Your task to perform on an android device: Open the Play Movies app and select the watchlist tab. Image 0: 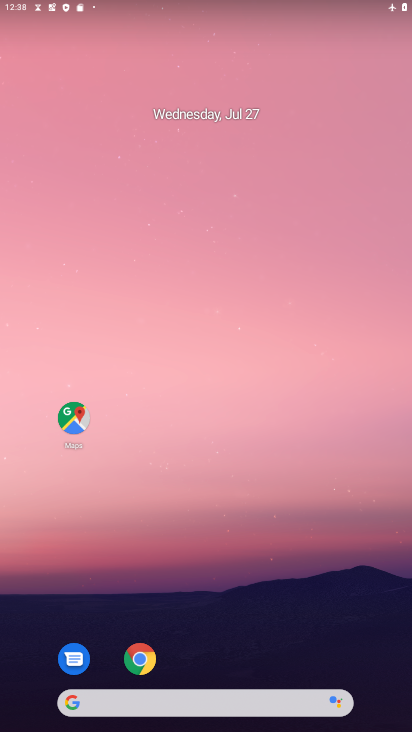
Step 0: press home button
Your task to perform on an android device: Open the Play Movies app and select the watchlist tab. Image 1: 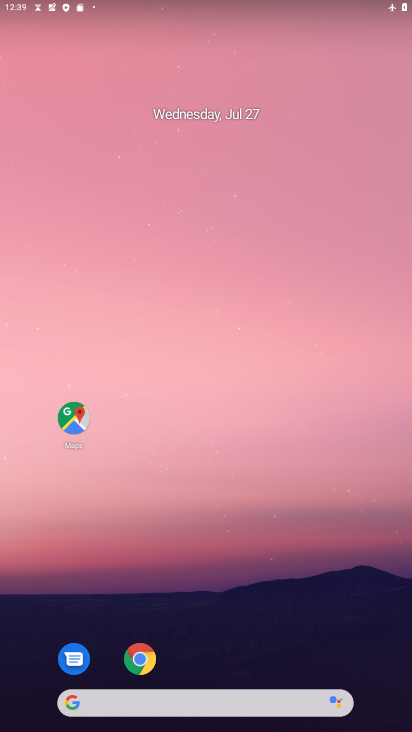
Step 1: drag from (205, 670) to (219, 134)
Your task to perform on an android device: Open the Play Movies app and select the watchlist tab. Image 2: 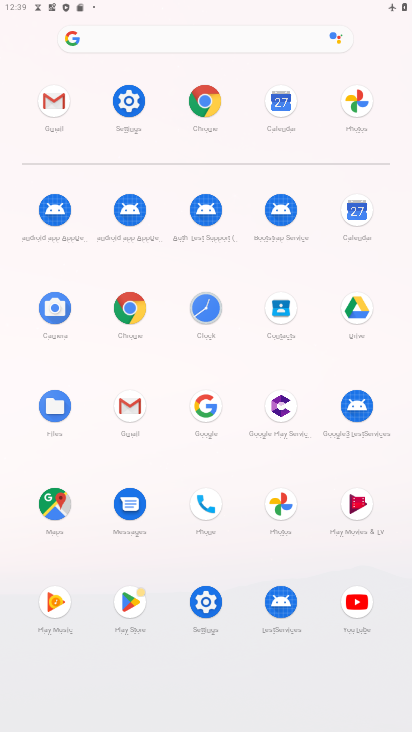
Step 2: click (357, 504)
Your task to perform on an android device: Open the Play Movies app and select the watchlist tab. Image 3: 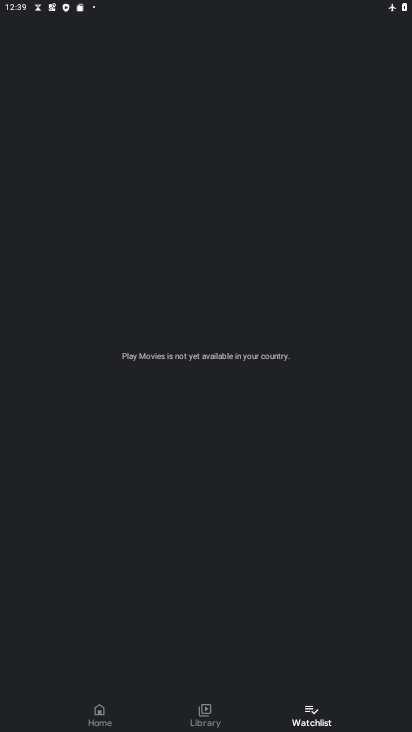
Step 3: task complete